Your task to perform on an android device: toggle sleep mode Image 0: 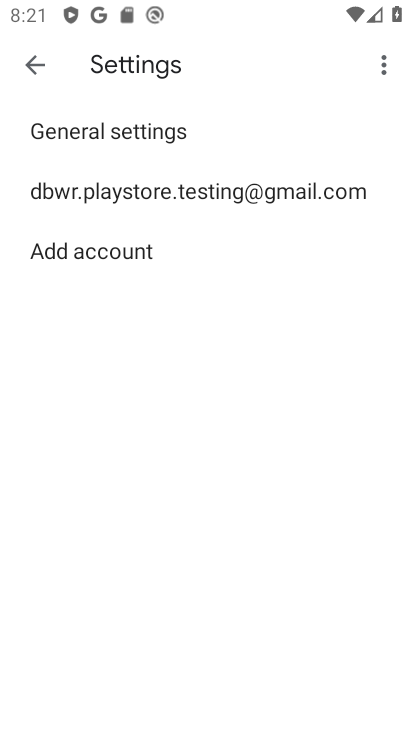
Step 0: press back button
Your task to perform on an android device: toggle sleep mode Image 1: 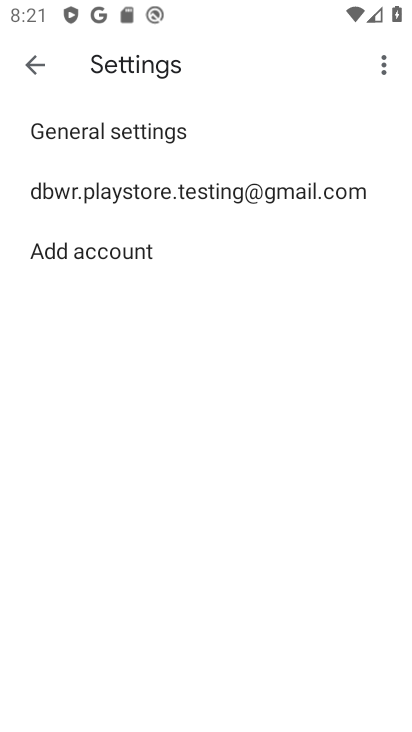
Step 1: press back button
Your task to perform on an android device: toggle sleep mode Image 2: 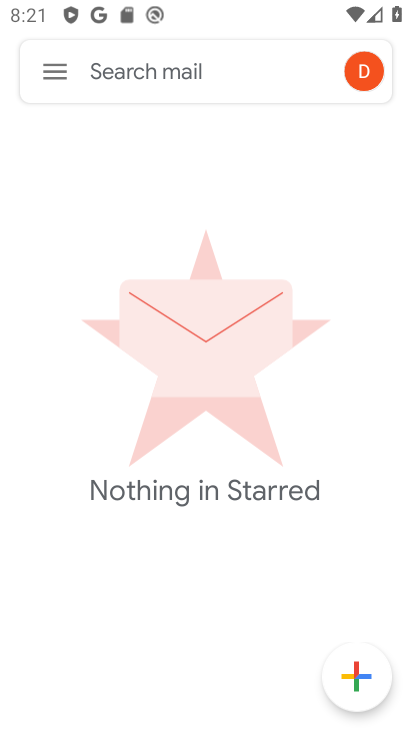
Step 2: press back button
Your task to perform on an android device: toggle sleep mode Image 3: 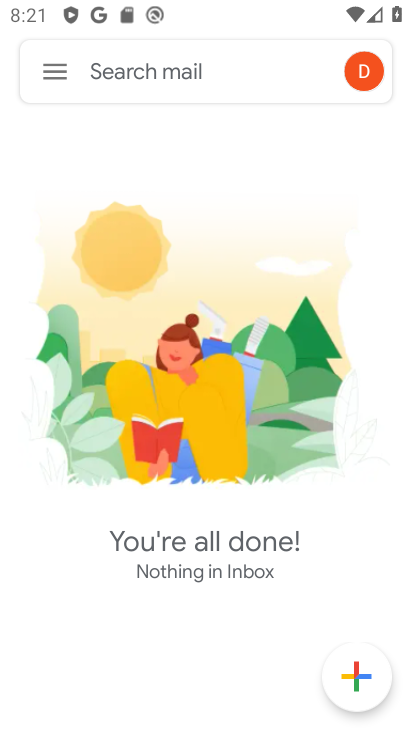
Step 3: press back button
Your task to perform on an android device: toggle sleep mode Image 4: 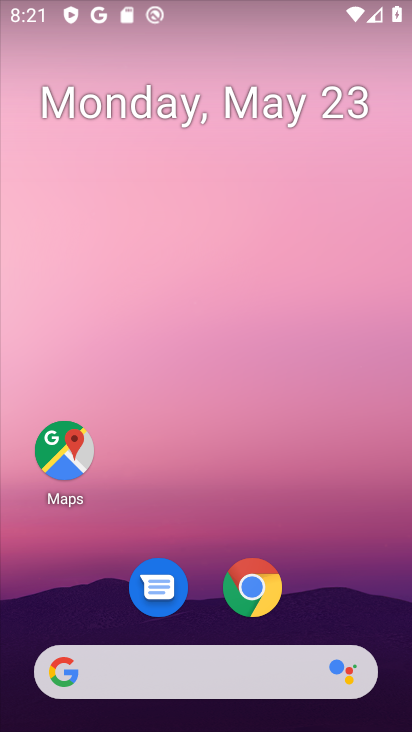
Step 4: drag from (99, 580) to (206, 113)
Your task to perform on an android device: toggle sleep mode Image 5: 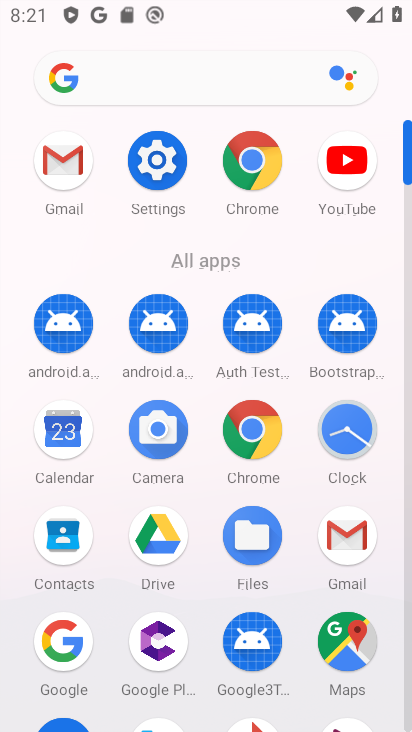
Step 5: click (157, 157)
Your task to perform on an android device: toggle sleep mode Image 6: 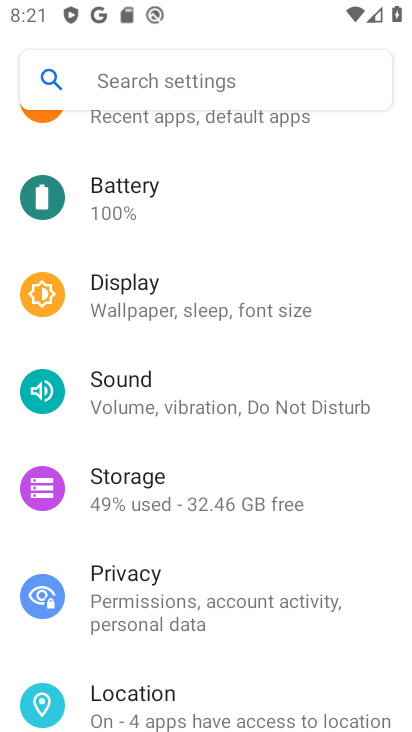
Step 6: click (163, 90)
Your task to perform on an android device: toggle sleep mode Image 7: 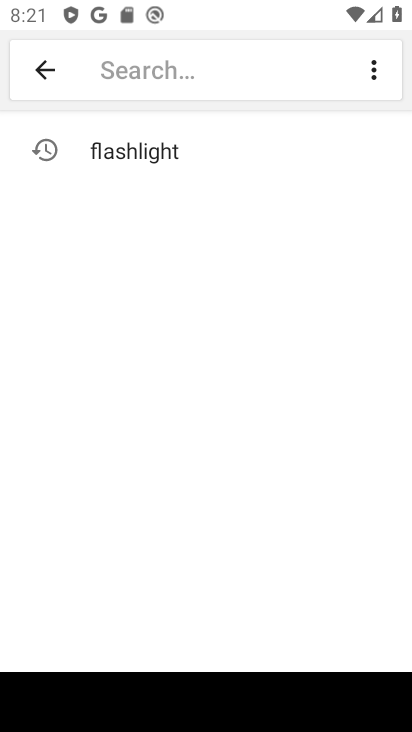
Step 7: type "sleep mode"
Your task to perform on an android device: toggle sleep mode Image 8: 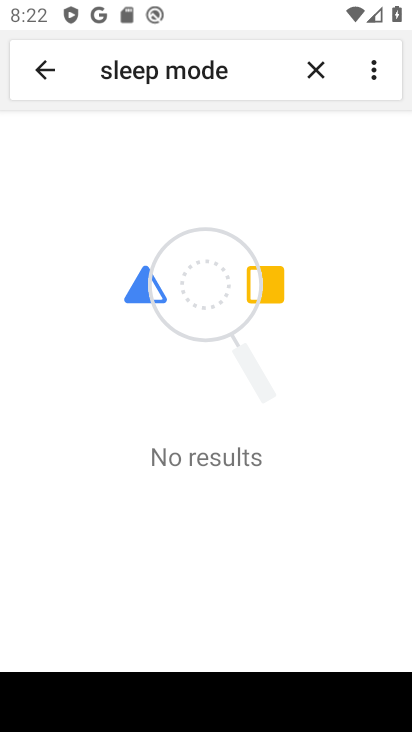
Step 8: task complete